Your task to perform on an android device: turn off improve location accuracy Image 0: 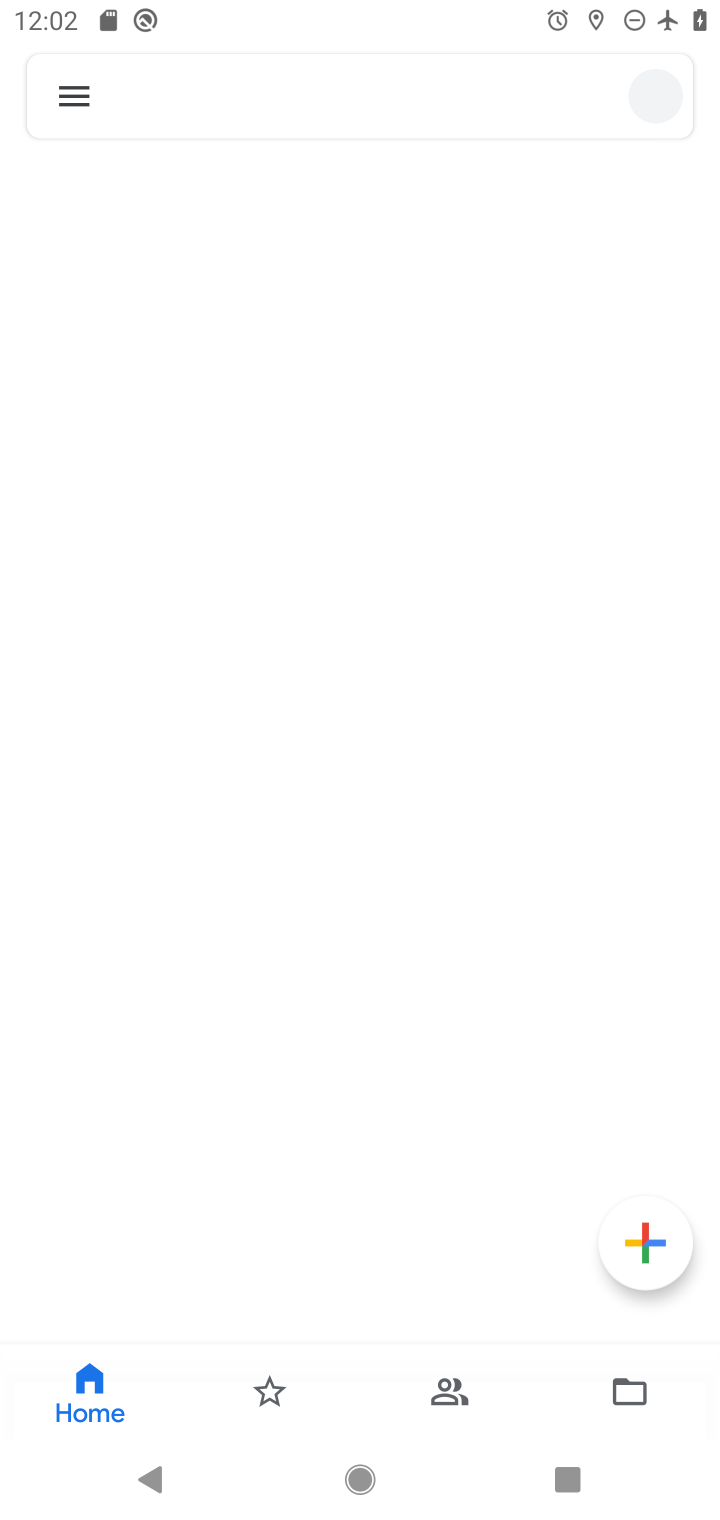
Step 0: drag from (330, 324) to (148, 943)
Your task to perform on an android device: turn off improve location accuracy Image 1: 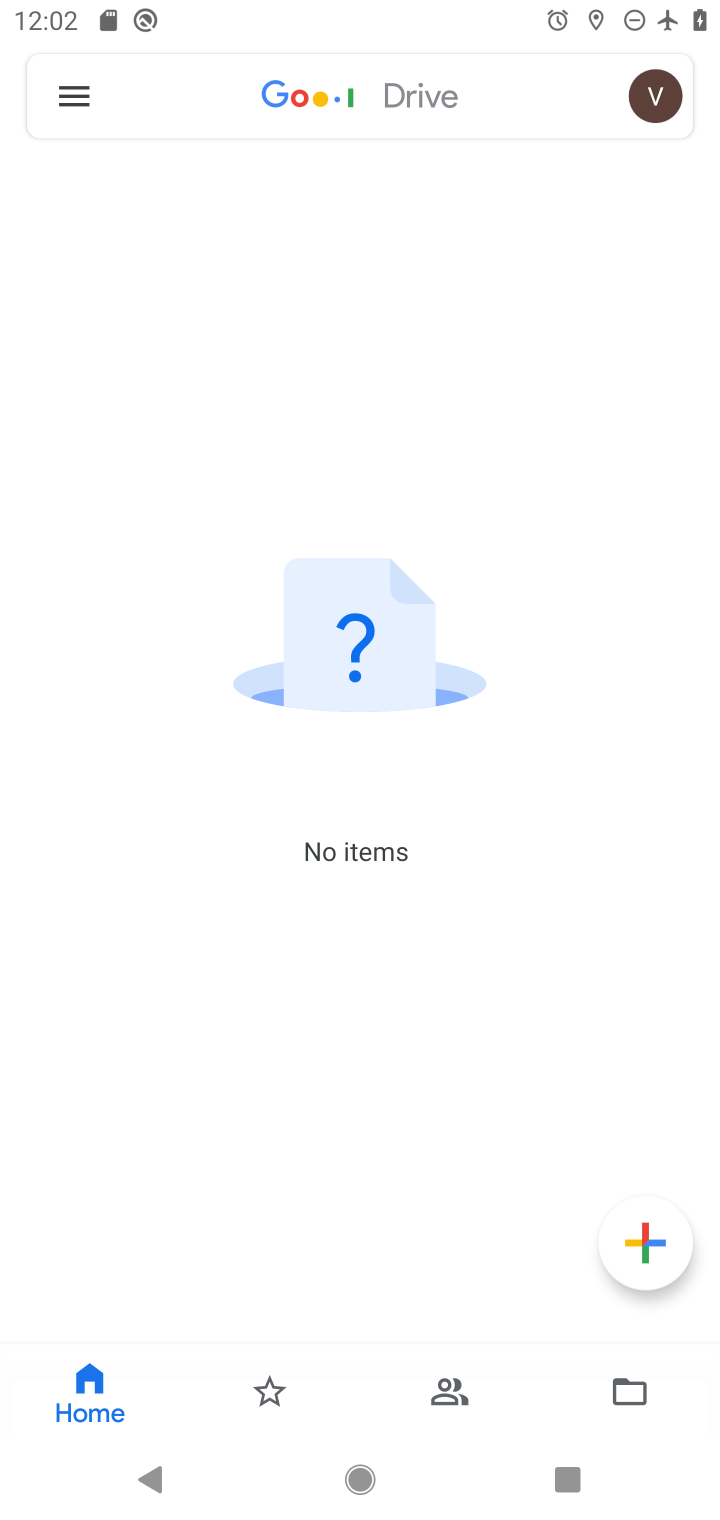
Step 1: press back button
Your task to perform on an android device: turn off improve location accuracy Image 2: 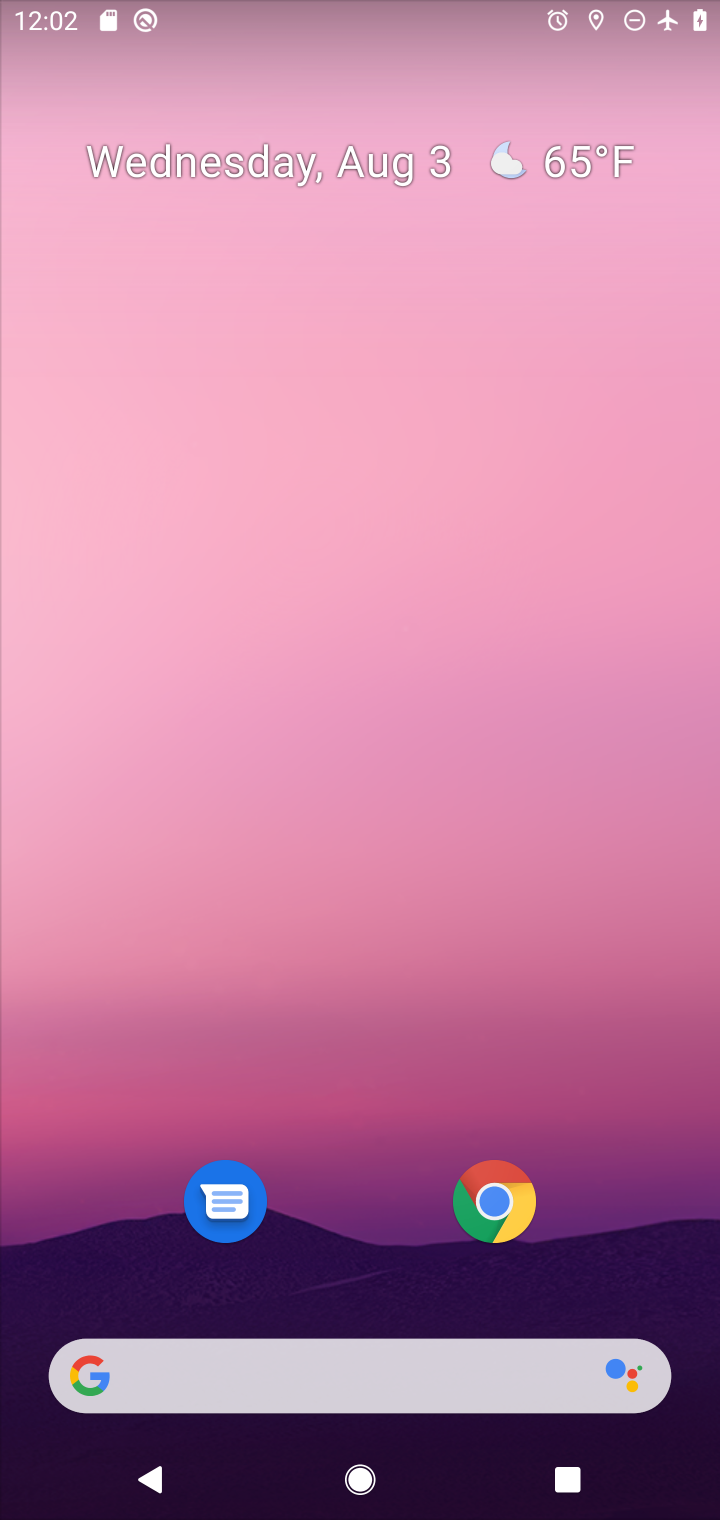
Step 2: drag from (405, 1220) to (373, 18)
Your task to perform on an android device: turn off improve location accuracy Image 3: 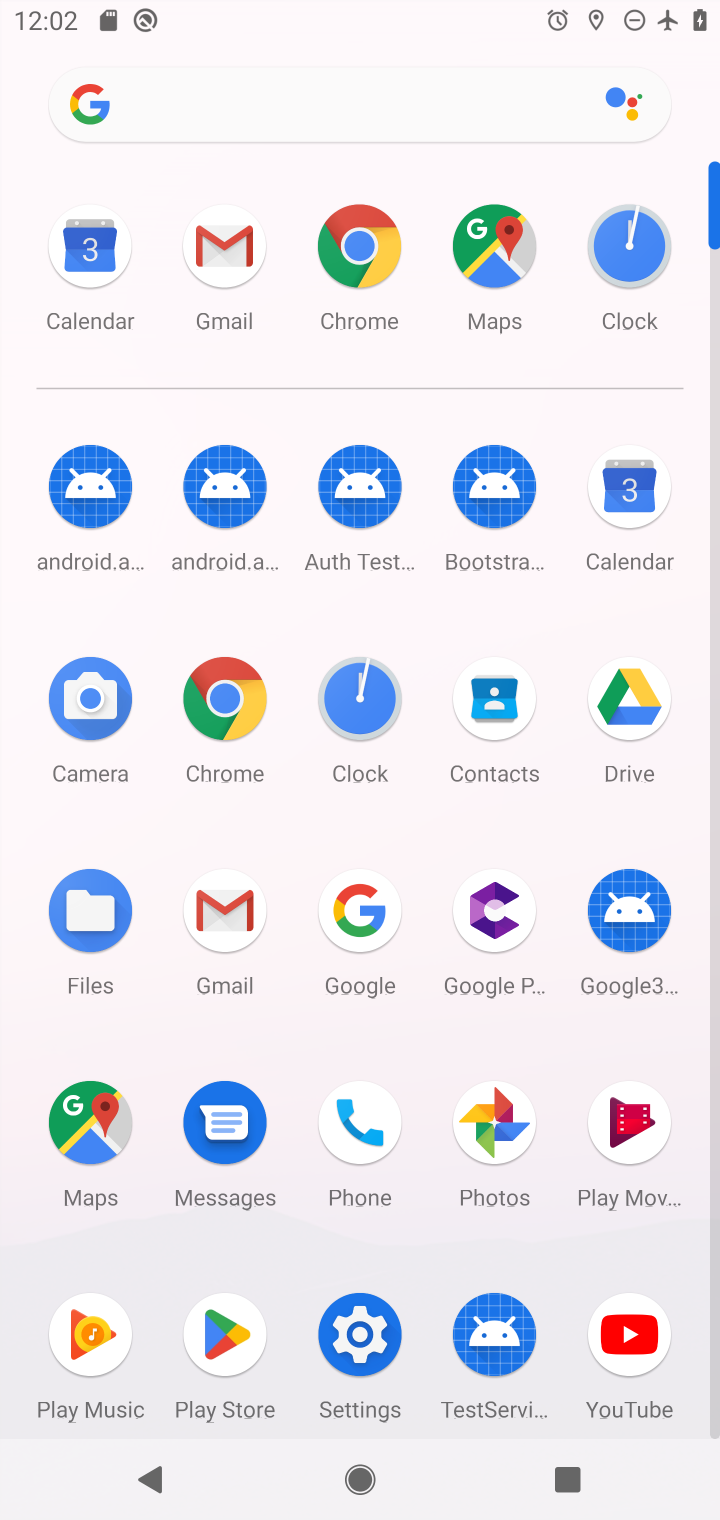
Step 3: click (368, 1330)
Your task to perform on an android device: turn off improve location accuracy Image 4: 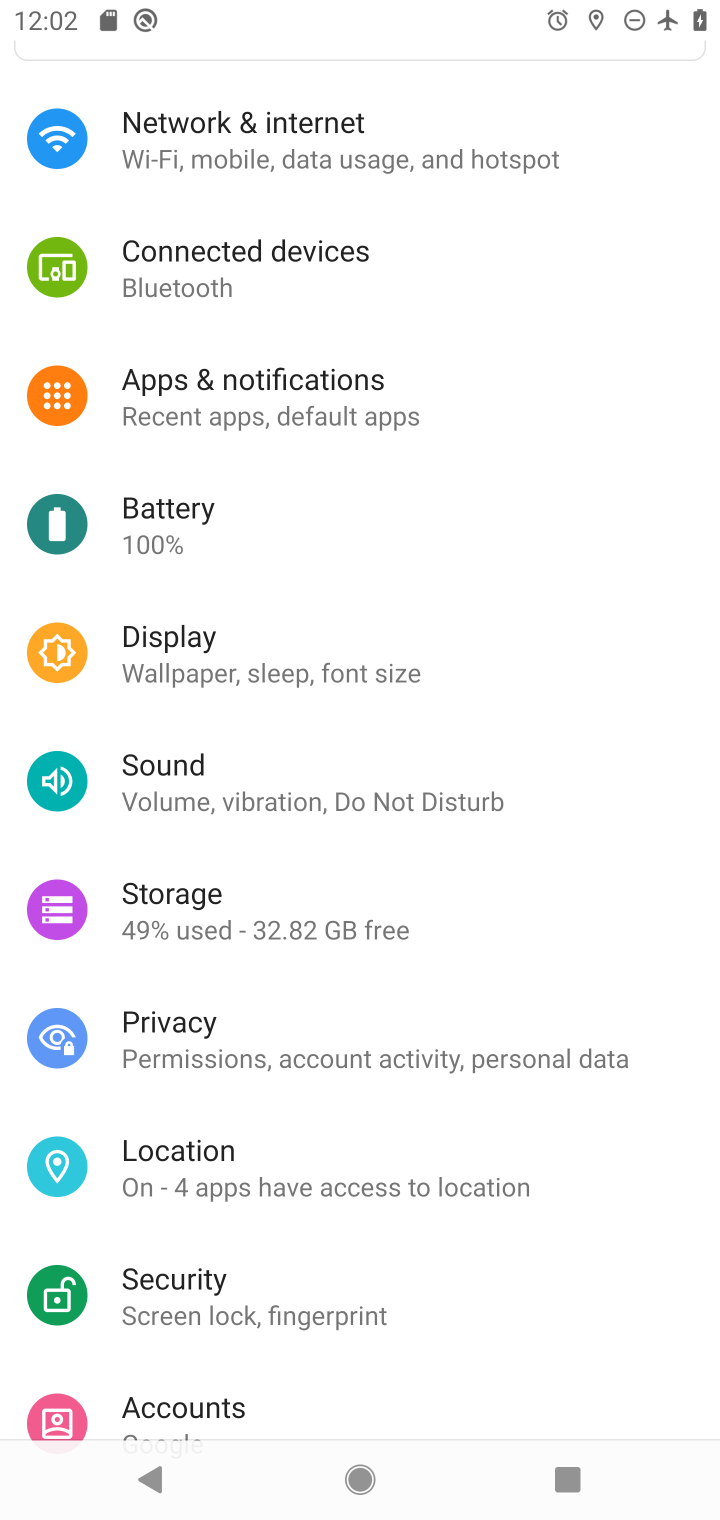
Step 4: click (185, 1194)
Your task to perform on an android device: turn off improve location accuracy Image 5: 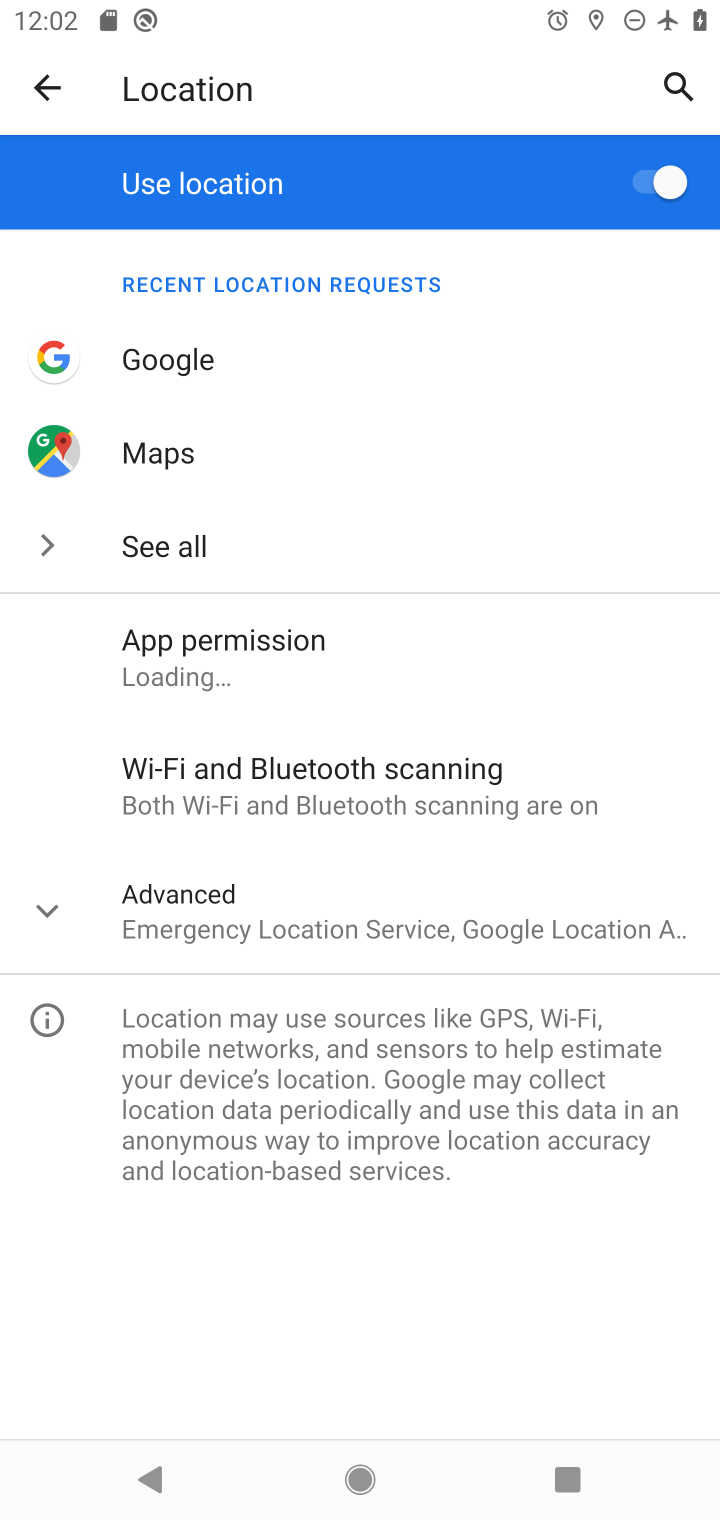
Step 5: click (208, 906)
Your task to perform on an android device: turn off improve location accuracy Image 6: 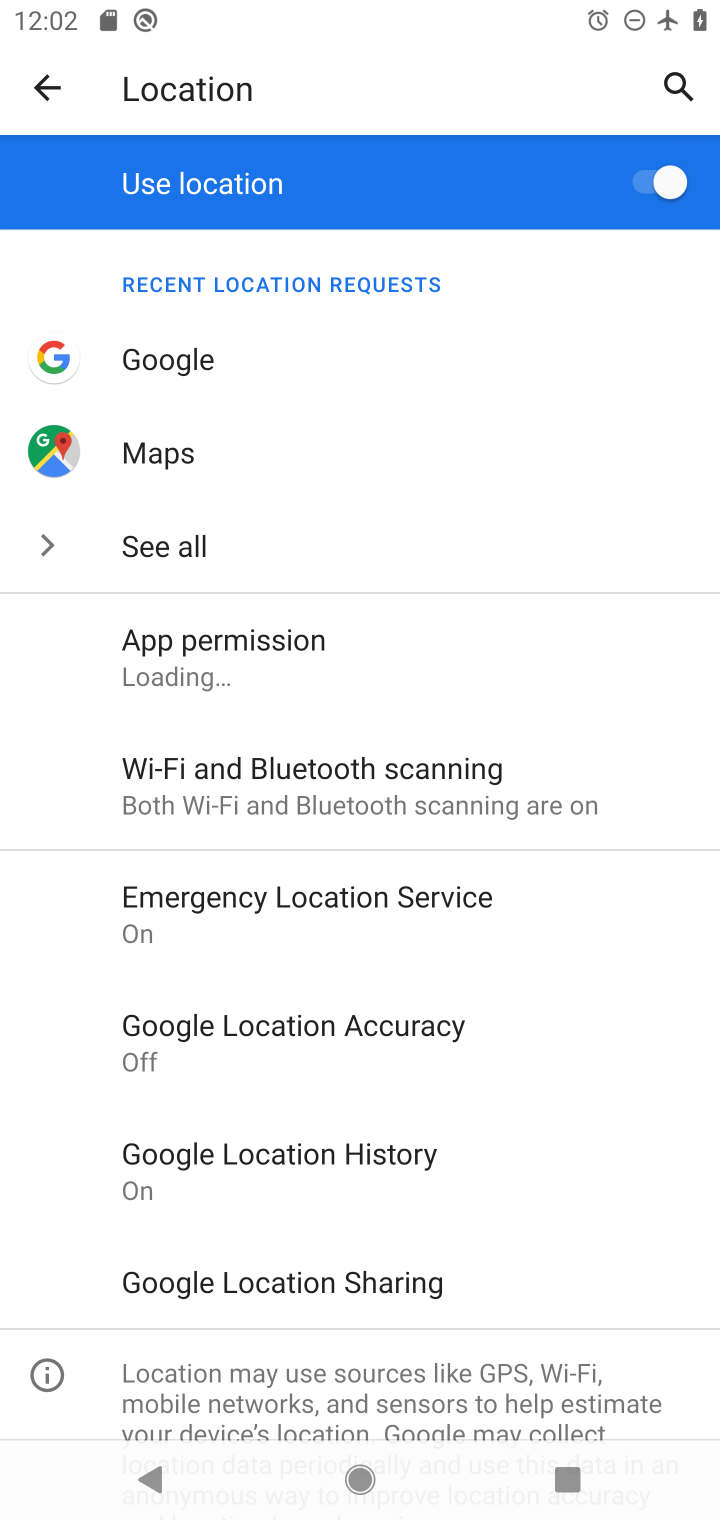
Step 6: click (222, 1019)
Your task to perform on an android device: turn off improve location accuracy Image 7: 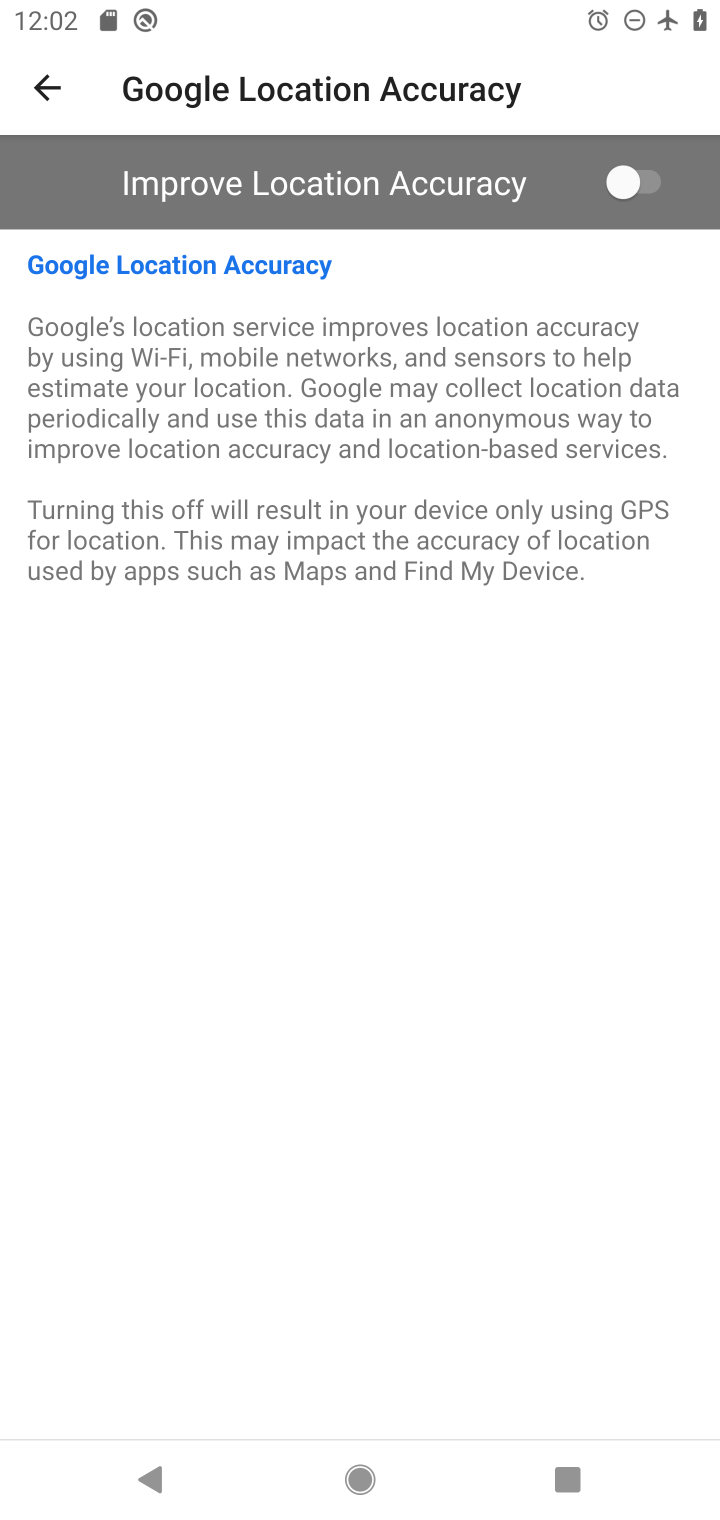
Step 7: task complete